Your task to perform on an android device: Go to internet settings Image 0: 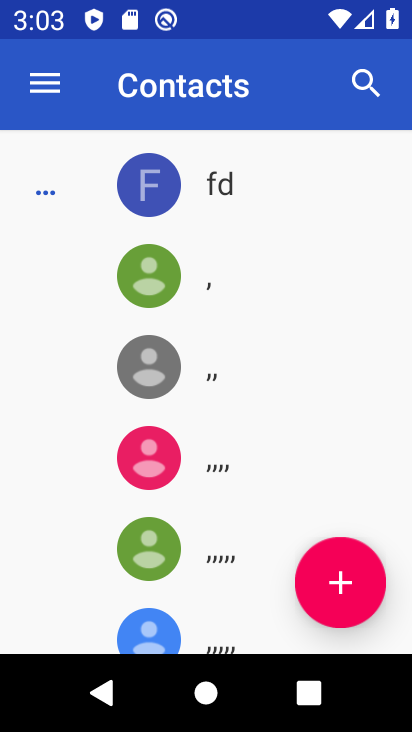
Step 0: press home button
Your task to perform on an android device: Go to internet settings Image 1: 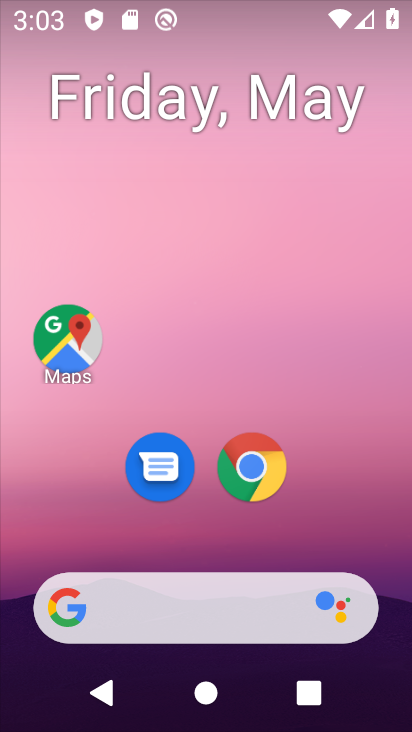
Step 1: drag from (364, 462) to (315, 32)
Your task to perform on an android device: Go to internet settings Image 2: 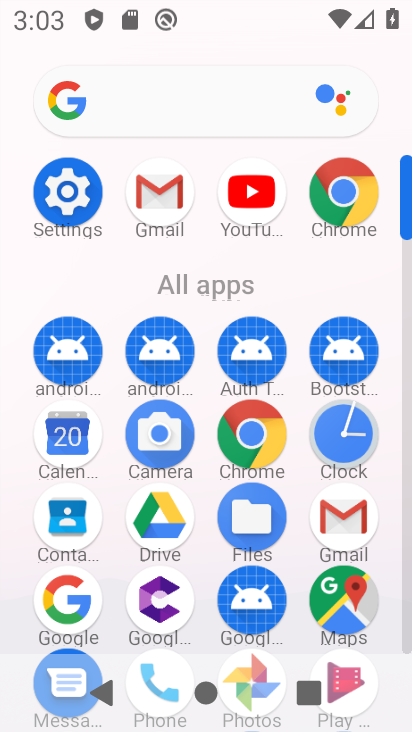
Step 2: click (63, 191)
Your task to perform on an android device: Go to internet settings Image 3: 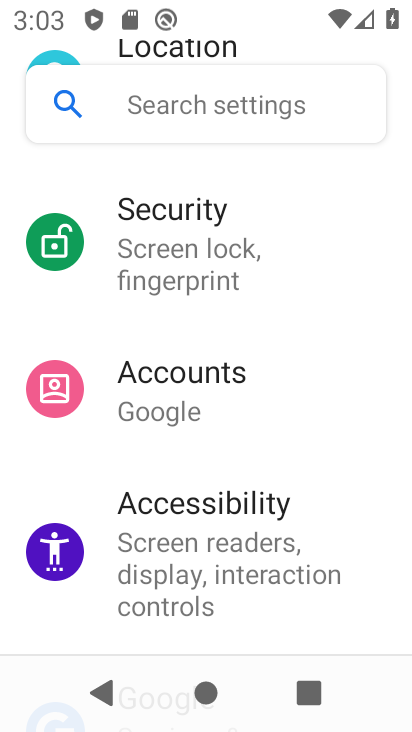
Step 3: drag from (243, 226) to (262, 666)
Your task to perform on an android device: Go to internet settings Image 4: 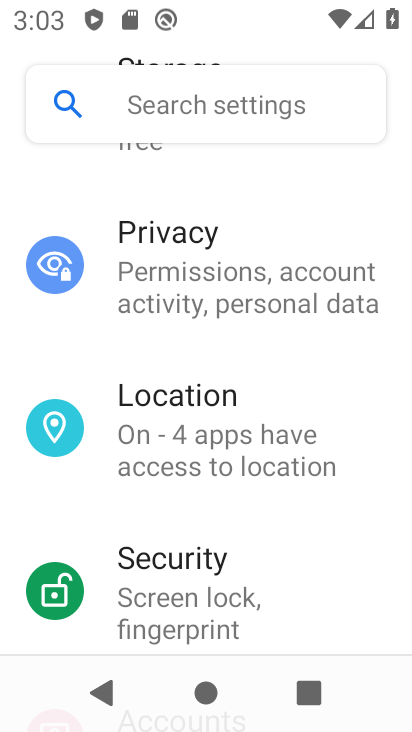
Step 4: drag from (243, 246) to (274, 640)
Your task to perform on an android device: Go to internet settings Image 5: 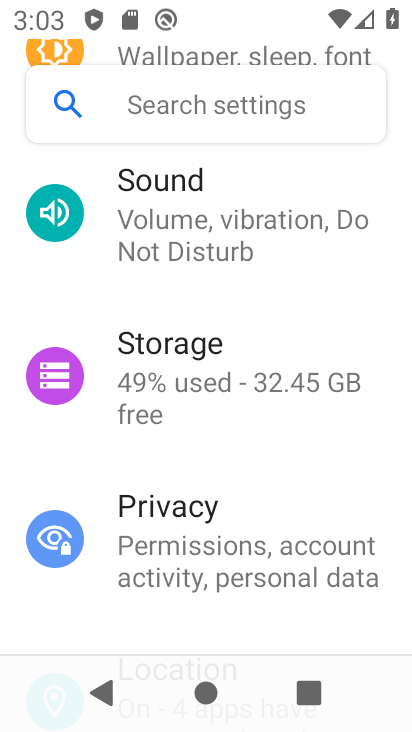
Step 5: drag from (224, 182) to (231, 711)
Your task to perform on an android device: Go to internet settings Image 6: 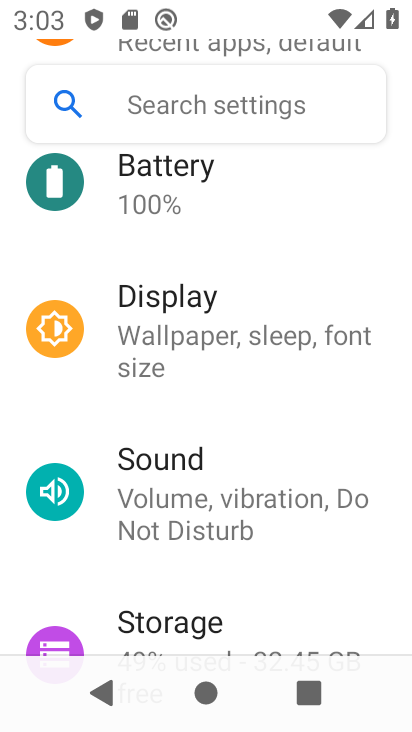
Step 6: drag from (227, 195) to (231, 691)
Your task to perform on an android device: Go to internet settings Image 7: 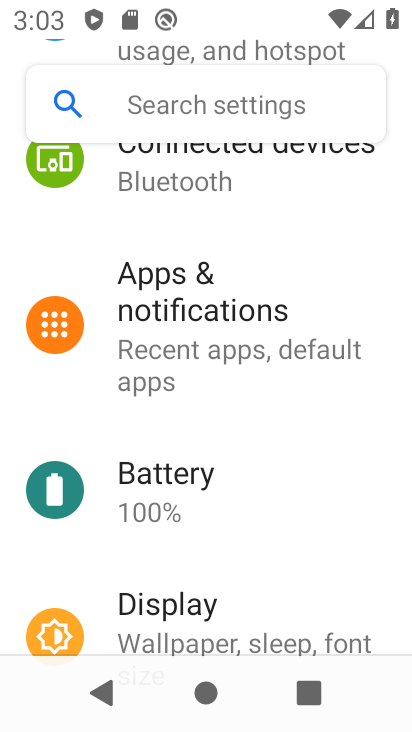
Step 7: drag from (247, 201) to (245, 678)
Your task to perform on an android device: Go to internet settings Image 8: 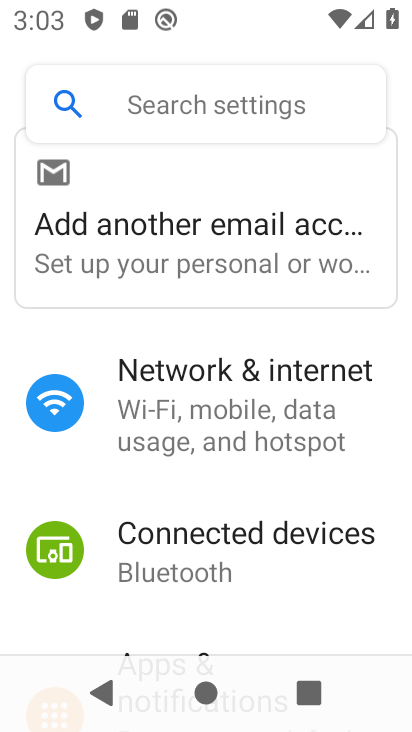
Step 8: click (228, 387)
Your task to perform on an android device: Go to internet settings Image 9: 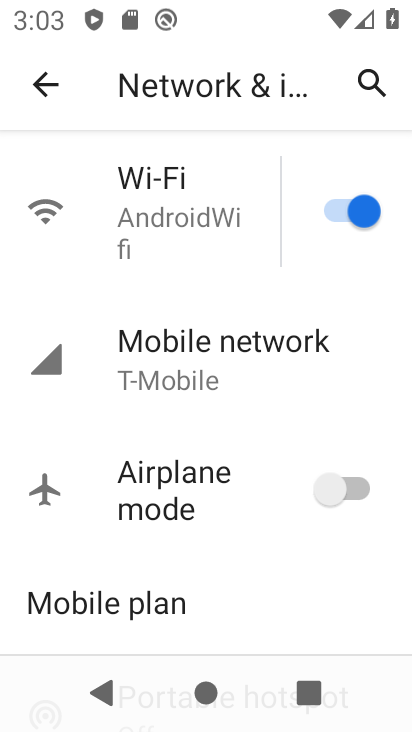
Step 9: click (185, 348)
Your task to perform on an android device: Go to internet settings Image 10: 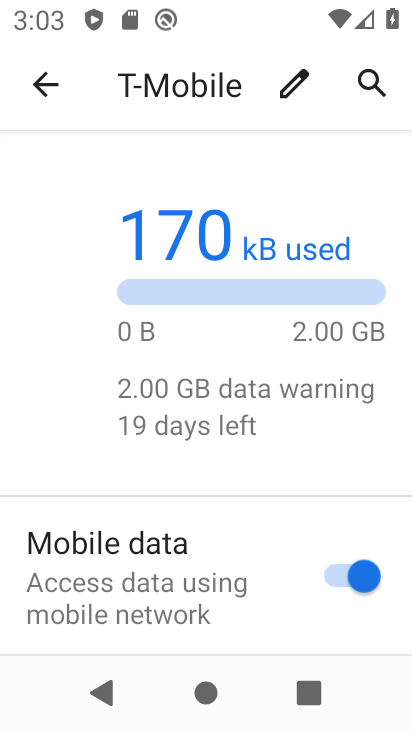
Step 10: task complete